Your task to perform on an android device: open app "Instagram" Image 0: 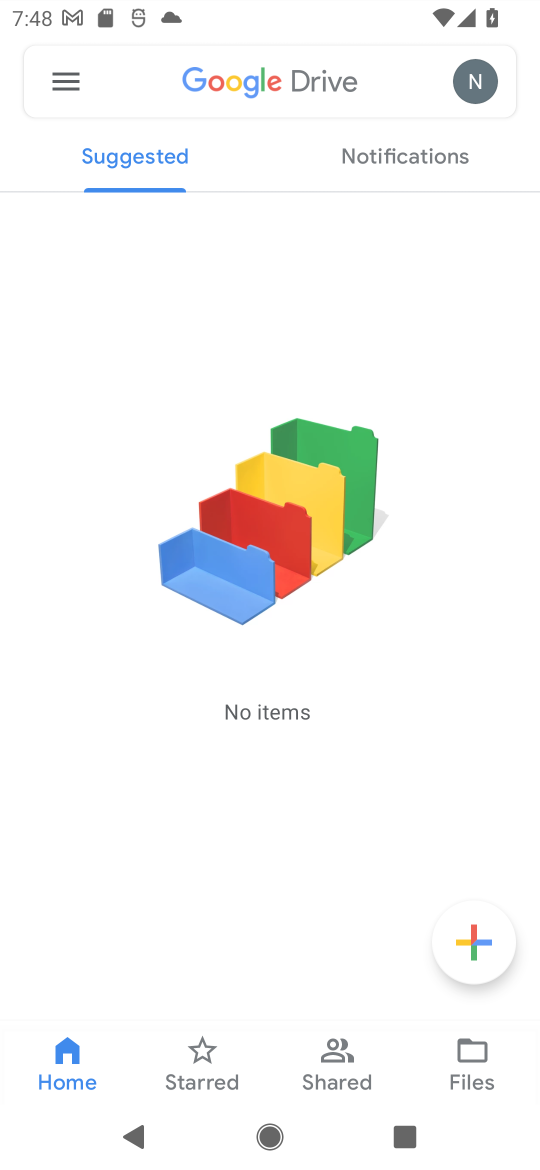
Step 0: drag from (427, 959) to (209, 213)
Your task to perform on an android device: open app "Instagram" Image 1: 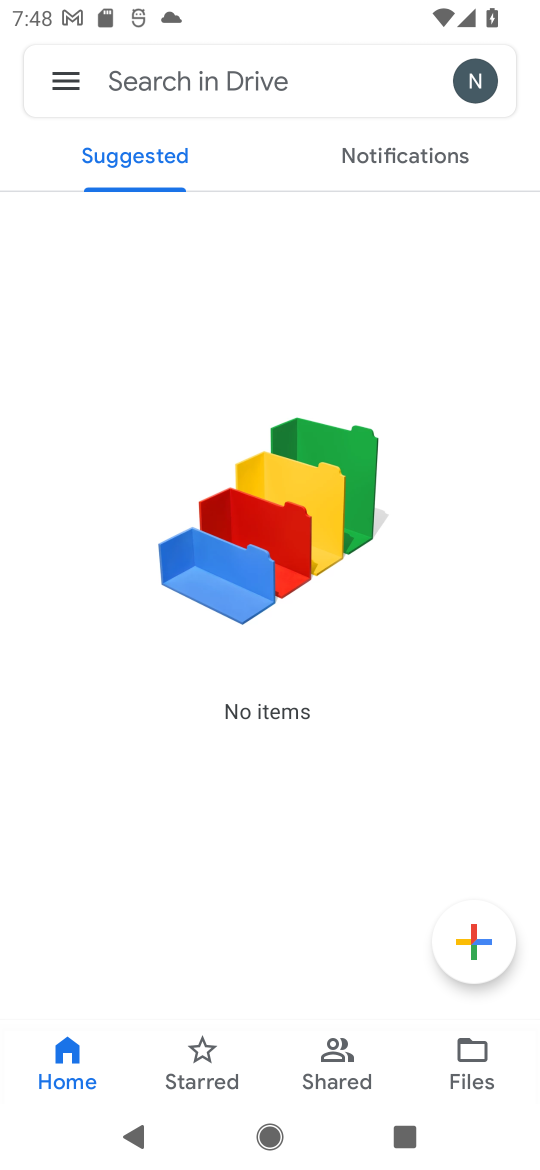
Step 1: press home button
Your task to perform on an android device: open app "Instagram" Image 2: 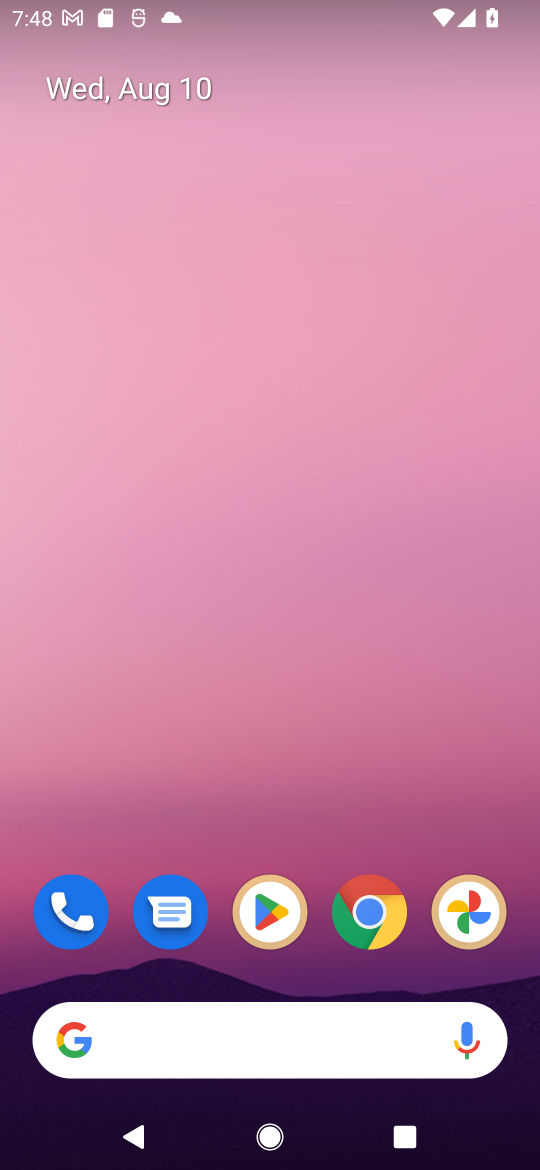
Step 2: drag from (486, 862) to (147, 1)
Your task to perform on an android device: open app "Instagram" Image 3: 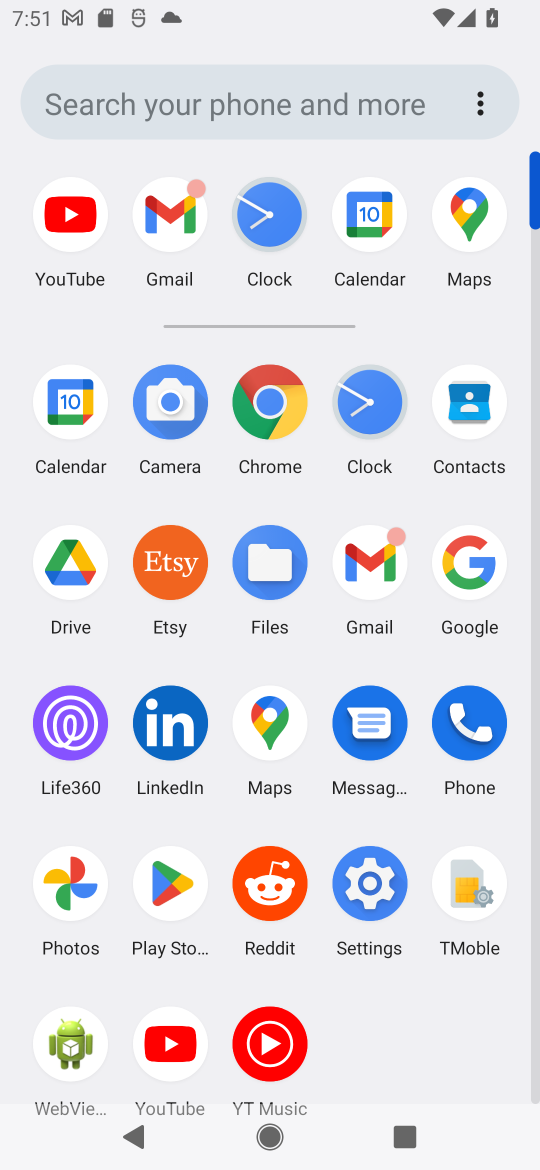
Step 3: click (170, 909)
Your task to perform on an android device: open app "Instagram" Image 4: 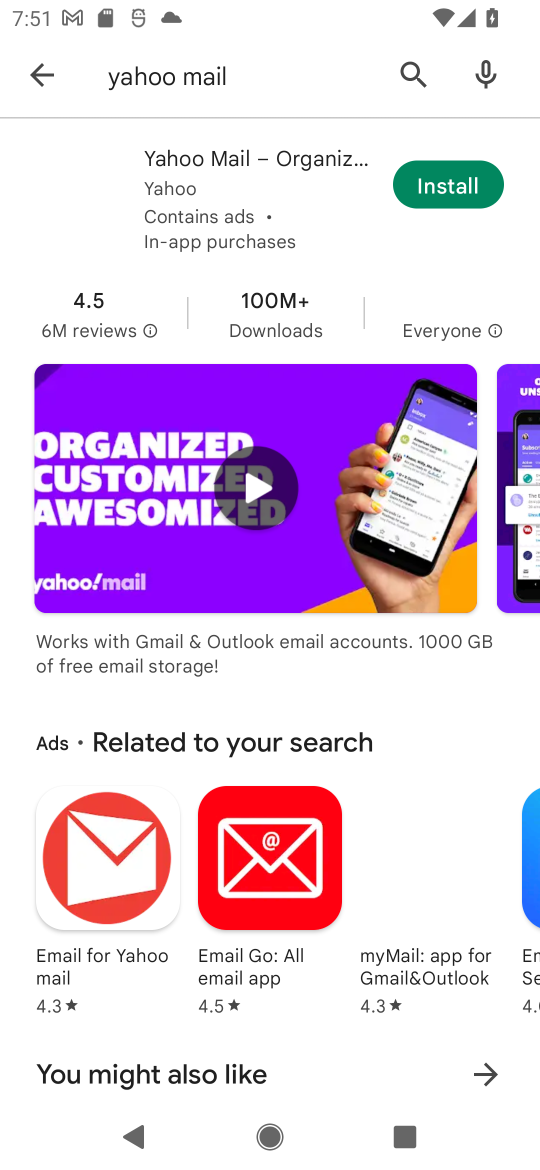
Step 4: press back button
Your task to perform on an android device: open app "Instagram" Image 5: 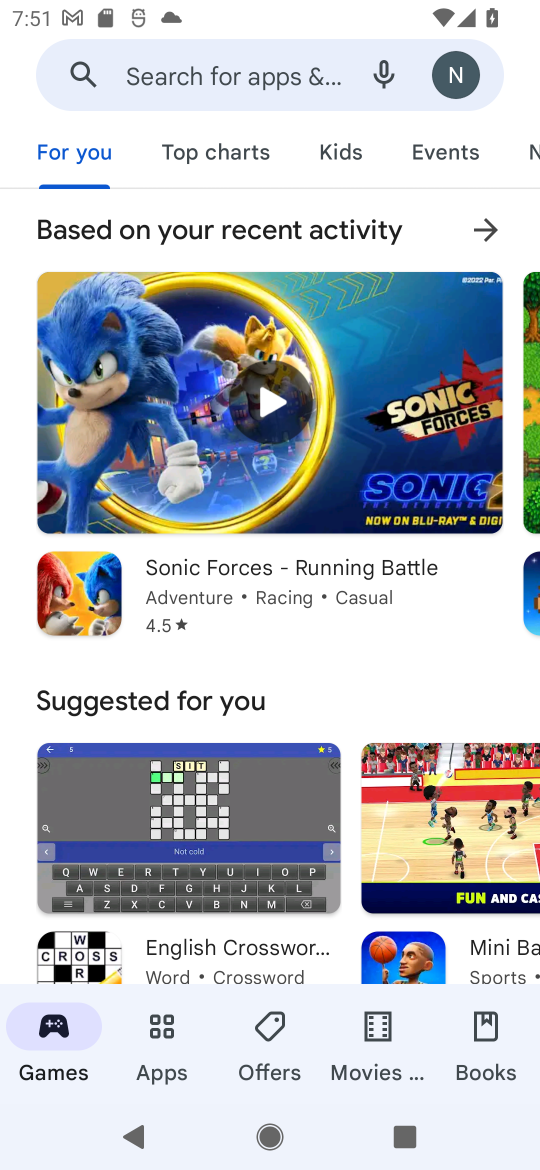
Step 5: click (186, 83)
Your task to perform on an android device: open app "Instagram" Image 6: 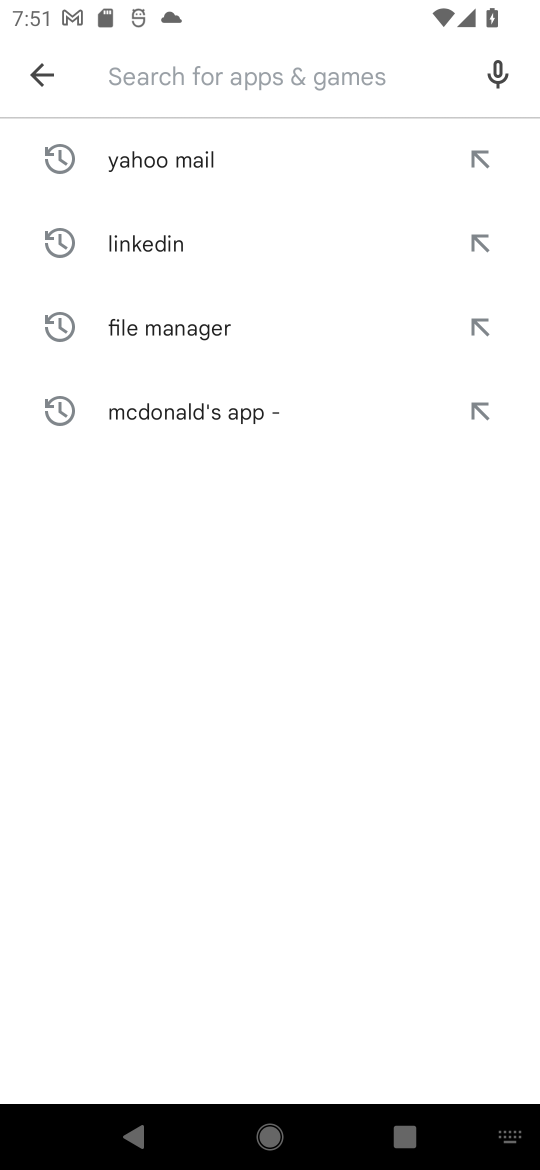
Step 6: type "Instagram"
Your task to perform on an android device: open app "Instagram" Image 7: 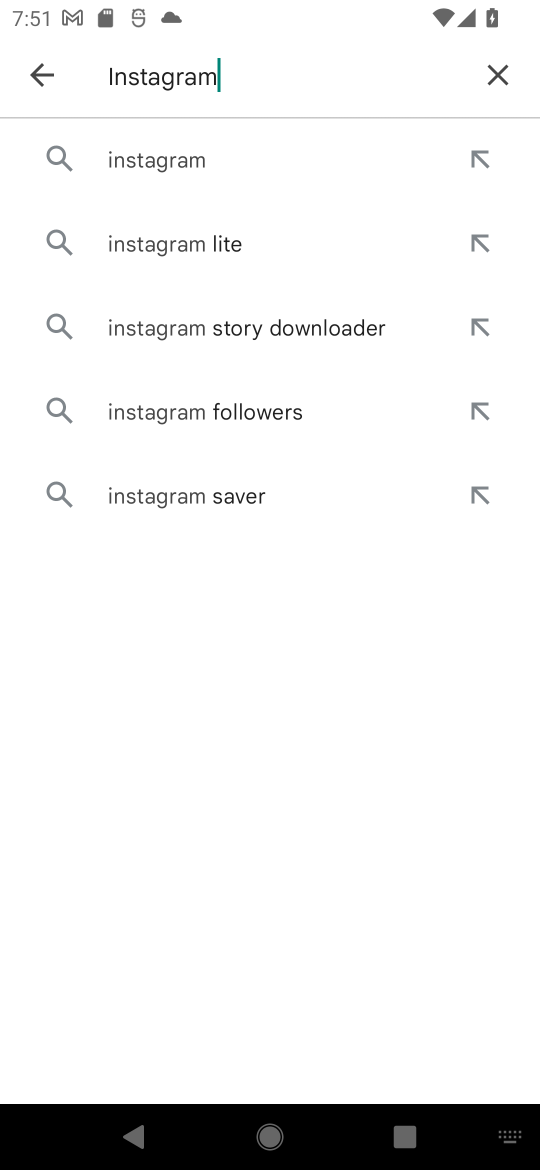
Step 7: click (250, 186)
Your task to perform on an android device: open app "Instagram" Image 8: 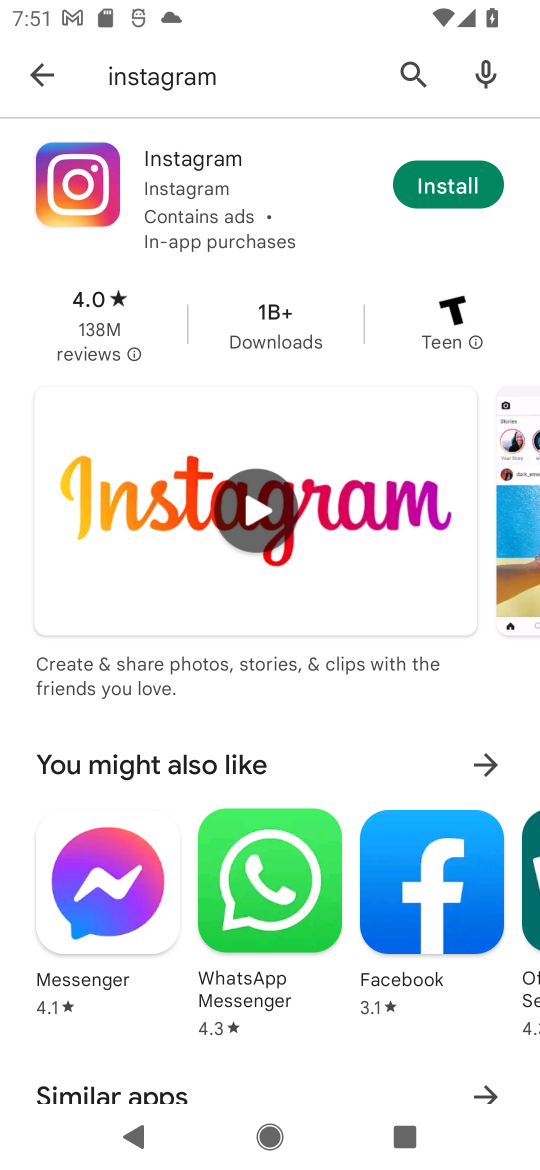
Step 8: task complete